Your task to perform on an android device: Do I have any events this weekend? Image 0: 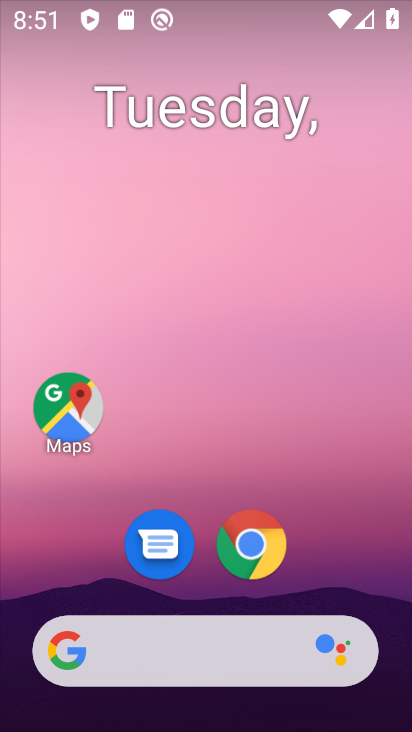
Step 0: drag from (216, 600) to (284, 59)
Your task to perform on an android device: Do I have any events this weekend? Image 1: 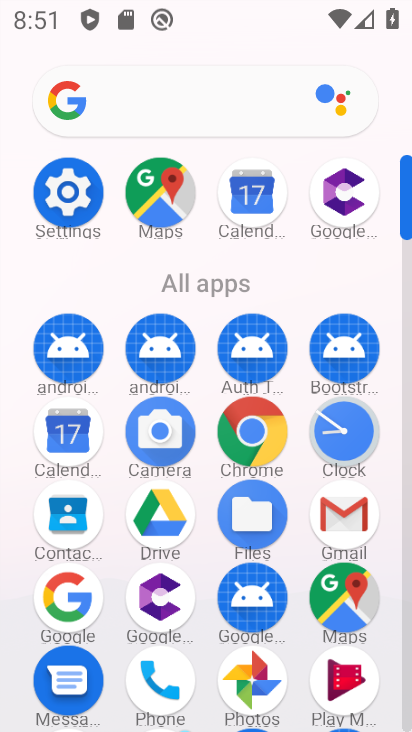
Step 1: click (57, 444)
Your task to perform on an android device: Do I have any events this weekend? Image 2: 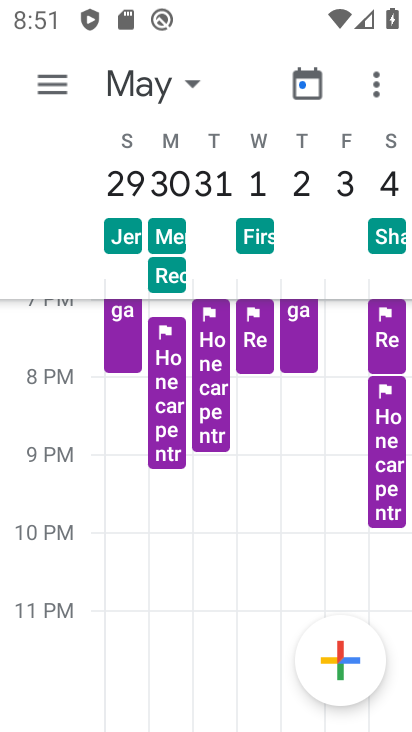
Step 2: click (305, 83)
Your task to perform on an android device: Do I have any events this weekend? Image 3: 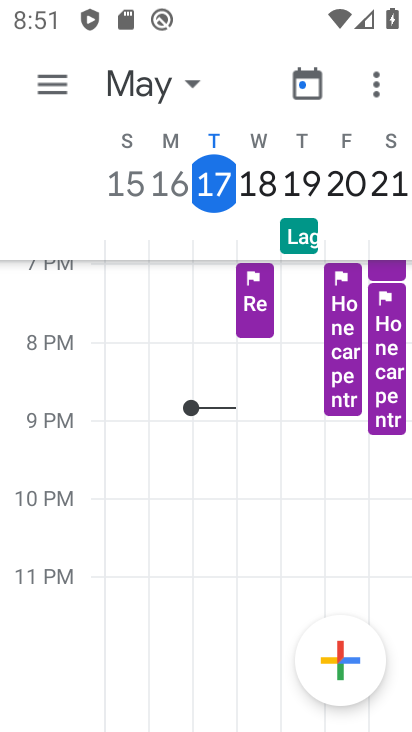
Step 3: task complete